Your task to perform on an android device: search for starred emails in the gmail app Image 0: 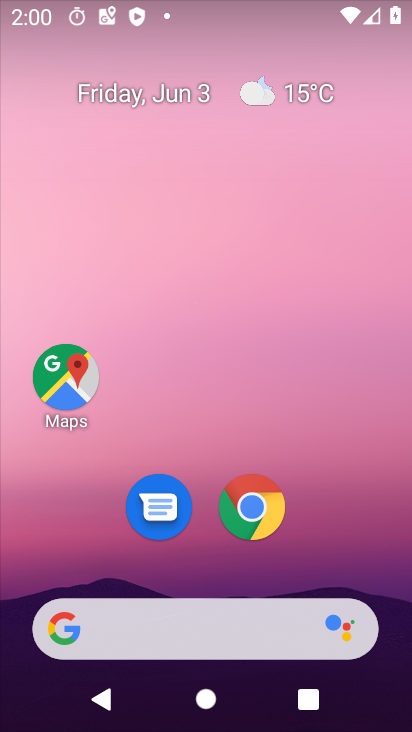
Step 0: drag from (388, 641) to (343, 52)
Your task to perform on an android device: search for starred emails in the gmail app Image 1: 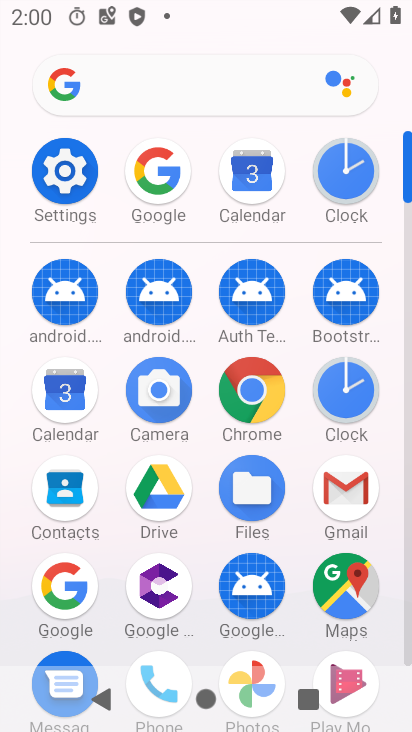
Step 1: click (365, 498)
Your task to perform on an android device: search for starred emails in the gmail app Image 2: 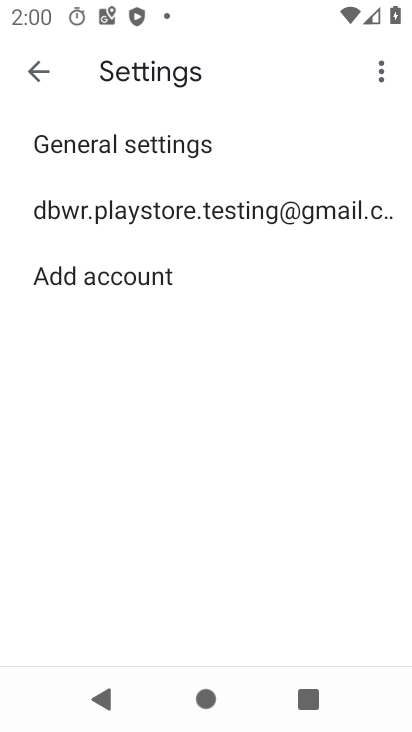
Step 2: press back button
Your task to perform on an android device: search for starred emails in the gmail app Image 3: 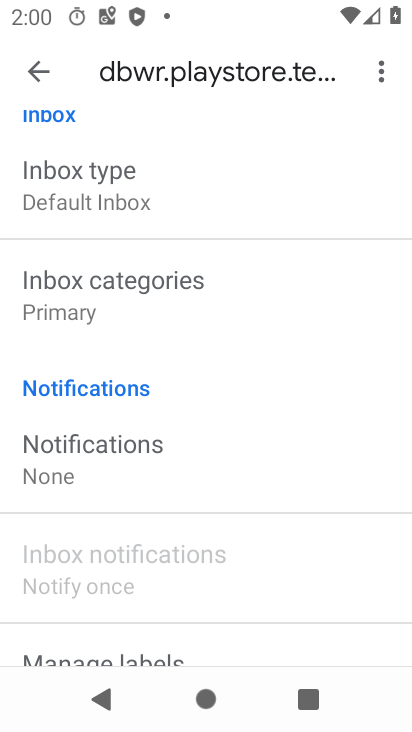
Step 3: press back button
Your task to perform on an android device: search for starred emails in the gmail app Image 4: 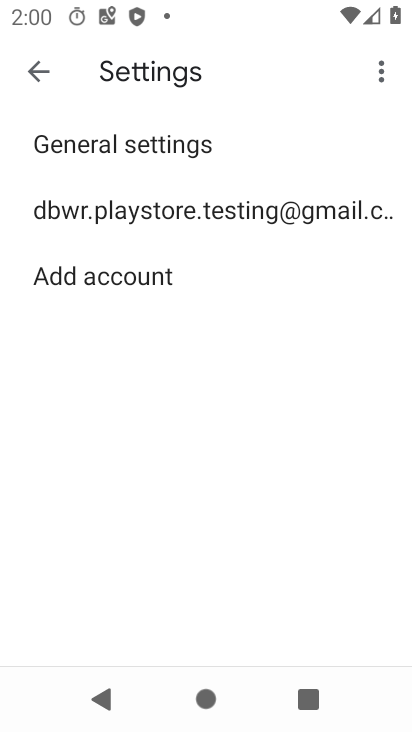
Step 4: press back button
Your task to perform on an android device: search for starred emails in the gmail app Image 5: 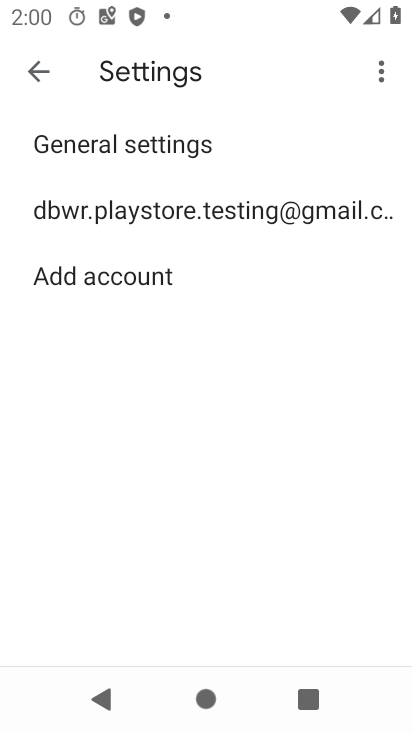
Step 5: press back button
Your task to perform on an android device: search for starred emails in the gmail app Image 6: 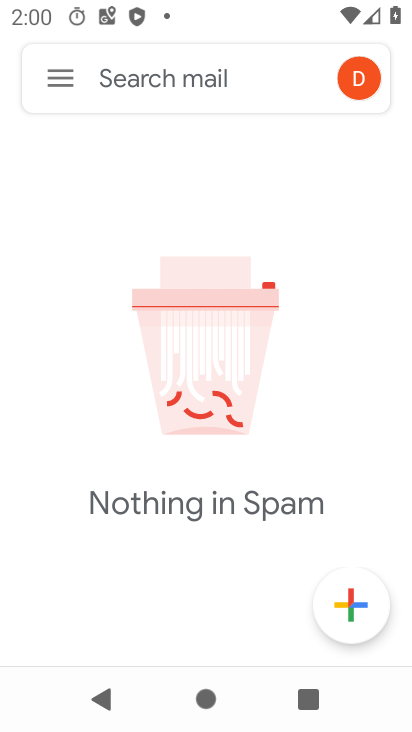
Step 6: click (65, 73)
Your task to perform on an android device: search for starred emails in the gmail app Image 7: 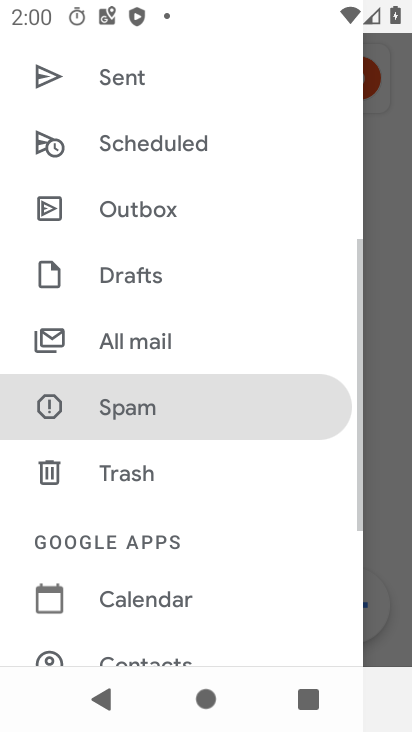
Step 7: drag from (148, 118) to (180, 638)
Your task to perform on an android device: search for starred emails in the gmail app Image 8: 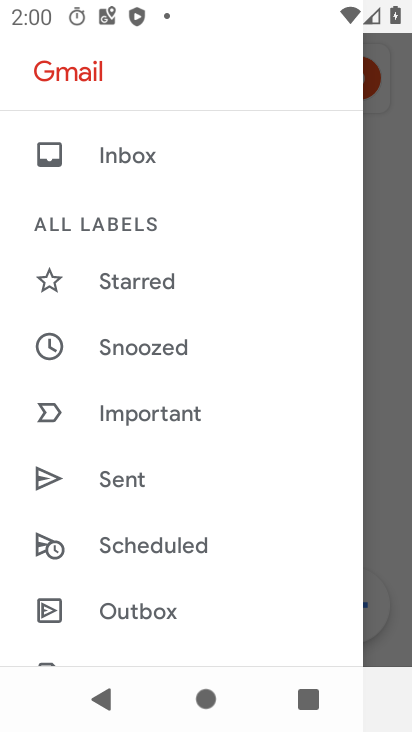
Step 8: click (177, 282)
Your task to perform on an android device: search for starred emails in the gmail app Image 9: 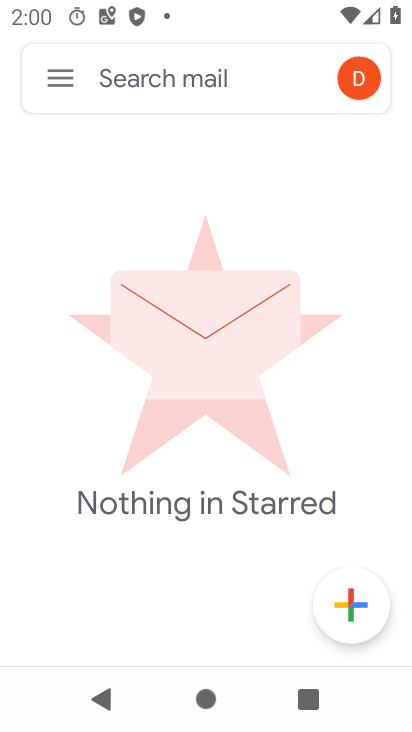
Step 9: task complete